Your task to perform on an android device: Open Maps and search for coffee Image 0: 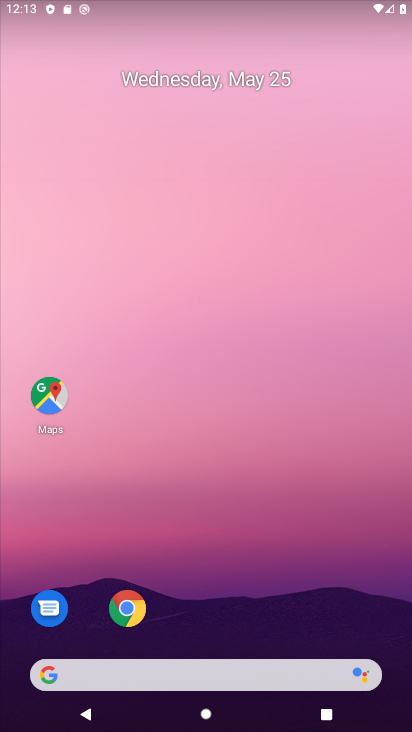
Step 0: click (48, 400)
Your task to perform on an android device: Open Maps and search for coffee Image 1: 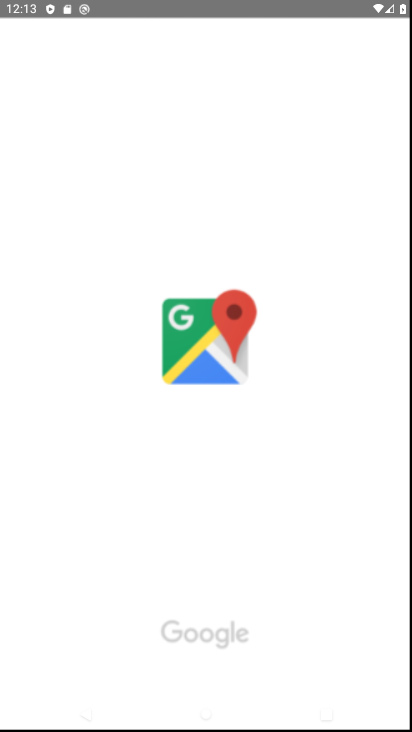
Step 1: task complete